Your task to perform on an android device: Show the shopping cart on newegg.com. Search for asus zenbook on newegg.com, select the first entry, add it to the cart, then select checkout. Image 0: 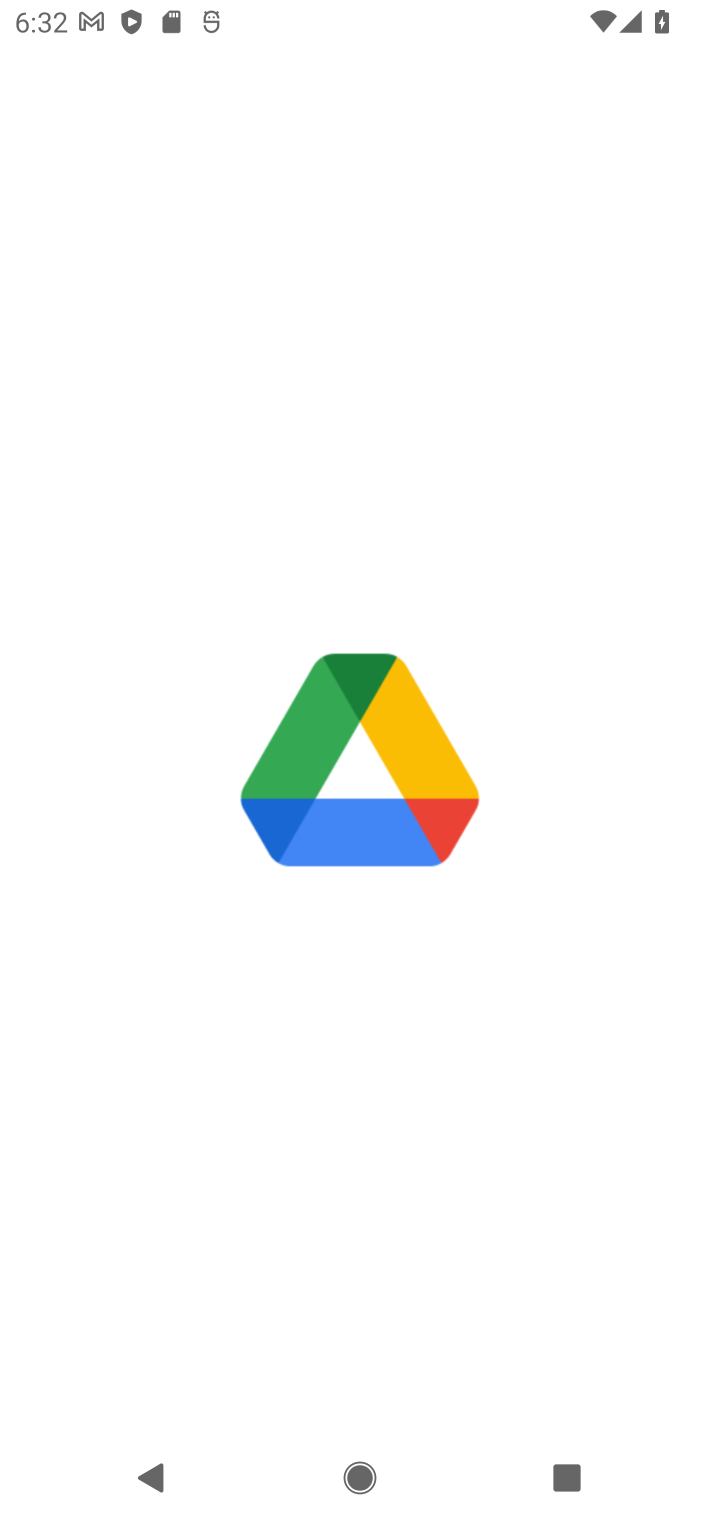
Step 0: press home button
Your task to perform on an android device: Show the shopping cart on newegg.com. Search for asus zenbook on newegg.com, select the first entry, add it to the cart, then select checkout. Image 1: 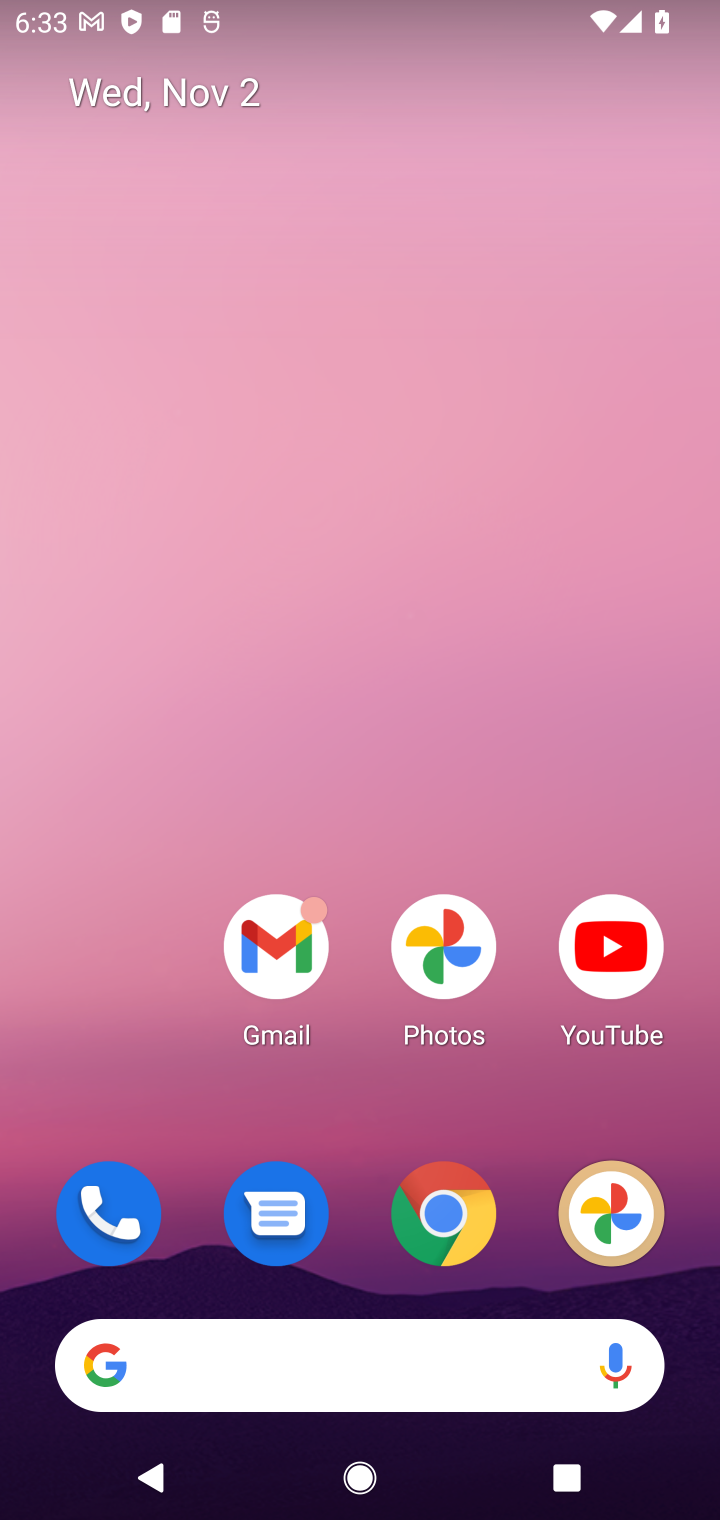
Step 1: click (446, 1208)
Your task to perform on an android device: Show the shopping cart on newegg.com. Search for asus zenbook on newegg.com, select the first entry, add it to the cart, then select checkout. Image 2: 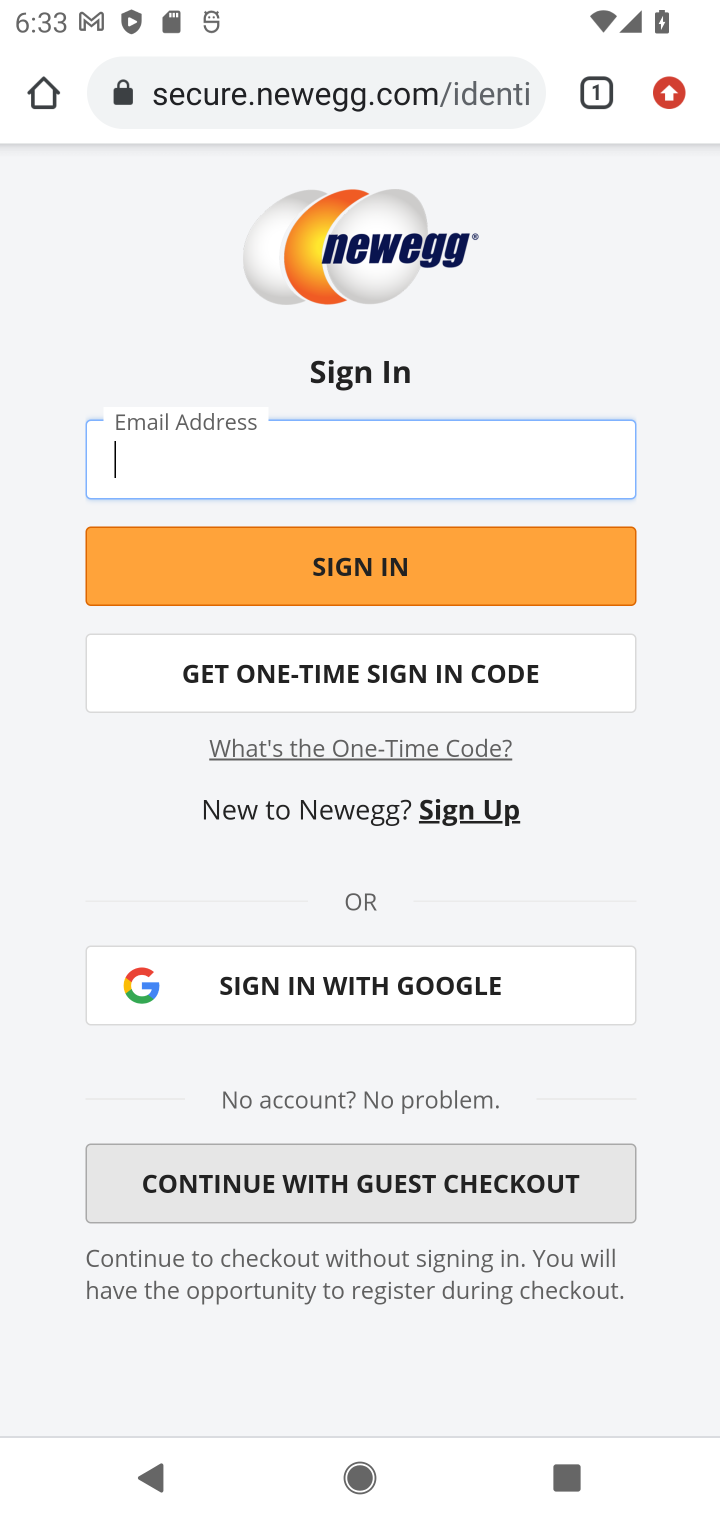
Step 2: click (410, 56)
Your task to perform on an android device: Show the shopping cart on newegg.com. Search for asus zenbook on newegg.com, select the first entry, add it to the cart, then select checkout. Image 3: 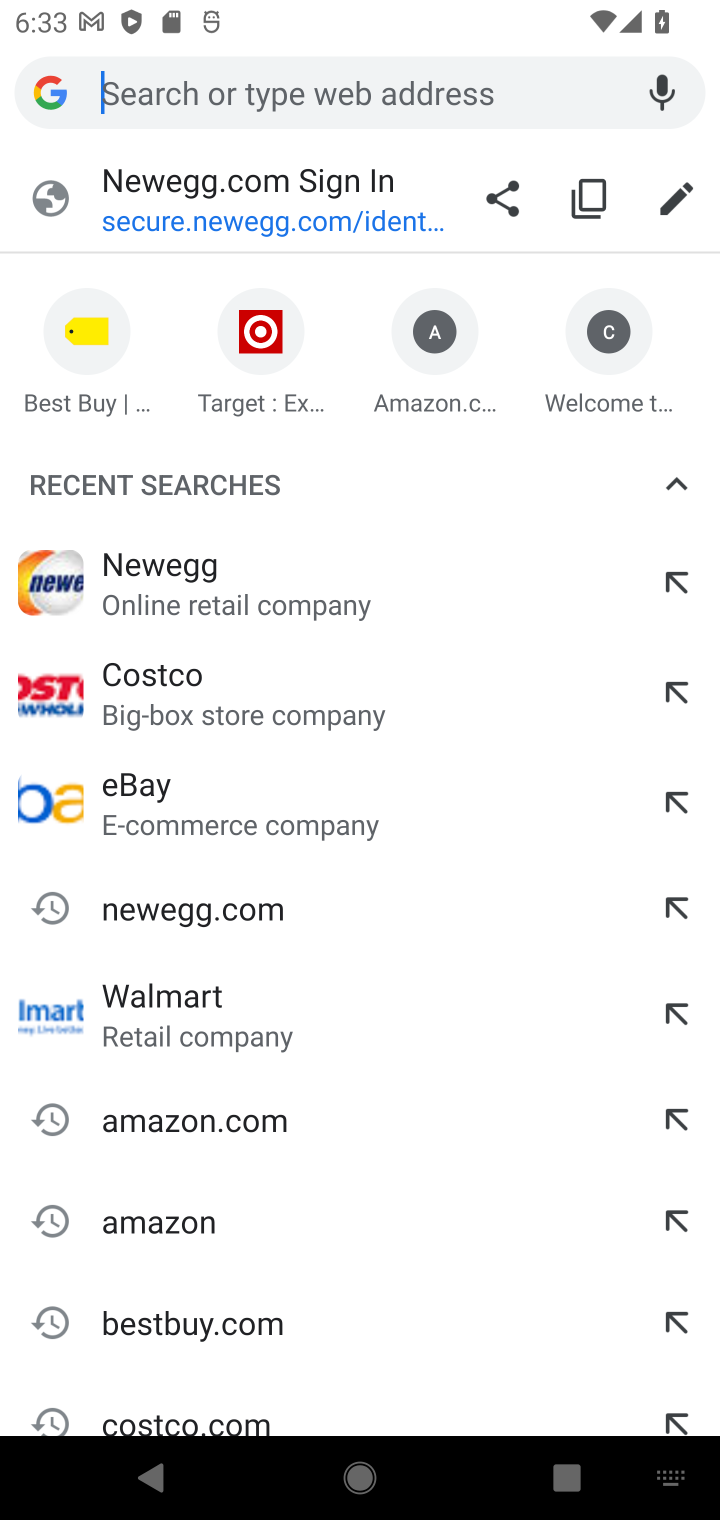
Step 3: click (176, 571)
Your task to perform on an android device: Show the shopping cart on newegg.com. Search for asus zenbook on newegg.com, select the first entry, add it to the cart, then select checkout. Image 4: 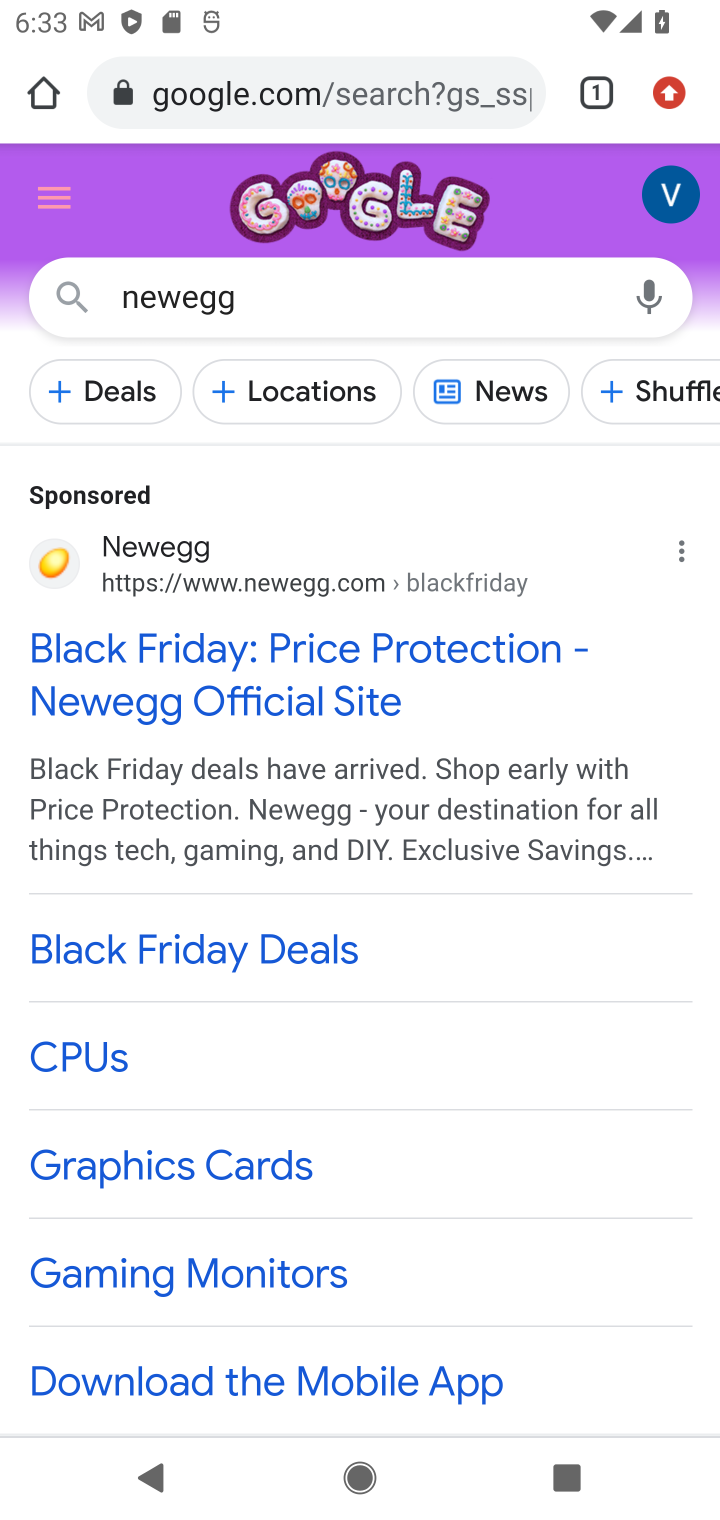
Step 4: click (150, 655)
Your task to perform on an android device: Show the shopping cart on newegg.com. Search for asus zenbook on newegg.com, select the first entry, add it to the cart, then select checkout. Image 5: 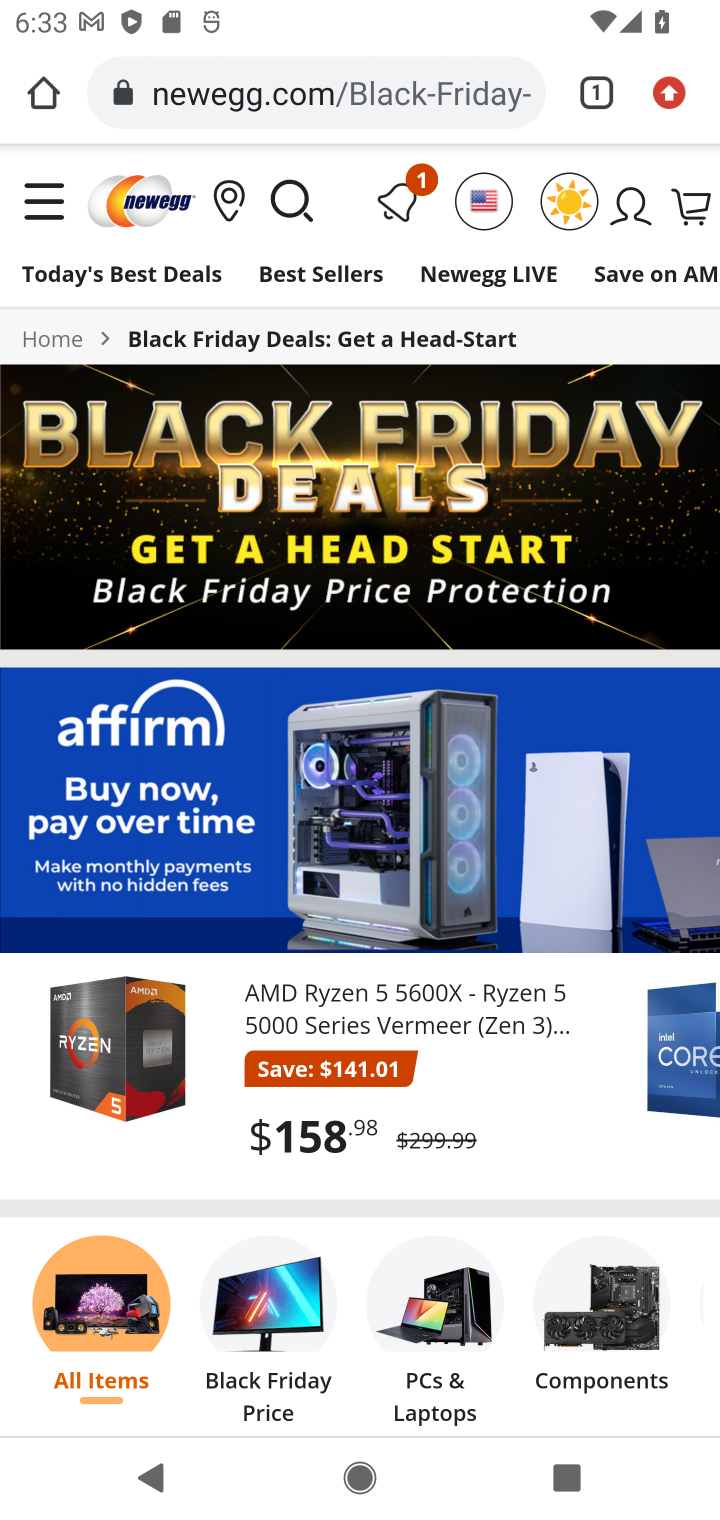
Step 5: click (695, 205)
Your task to perform on an android device: Show the shopping cart on newegg.com. Search for asus zenbook on newegg.com, select the first entry, add it to the cart, then select checkout. Image 6: 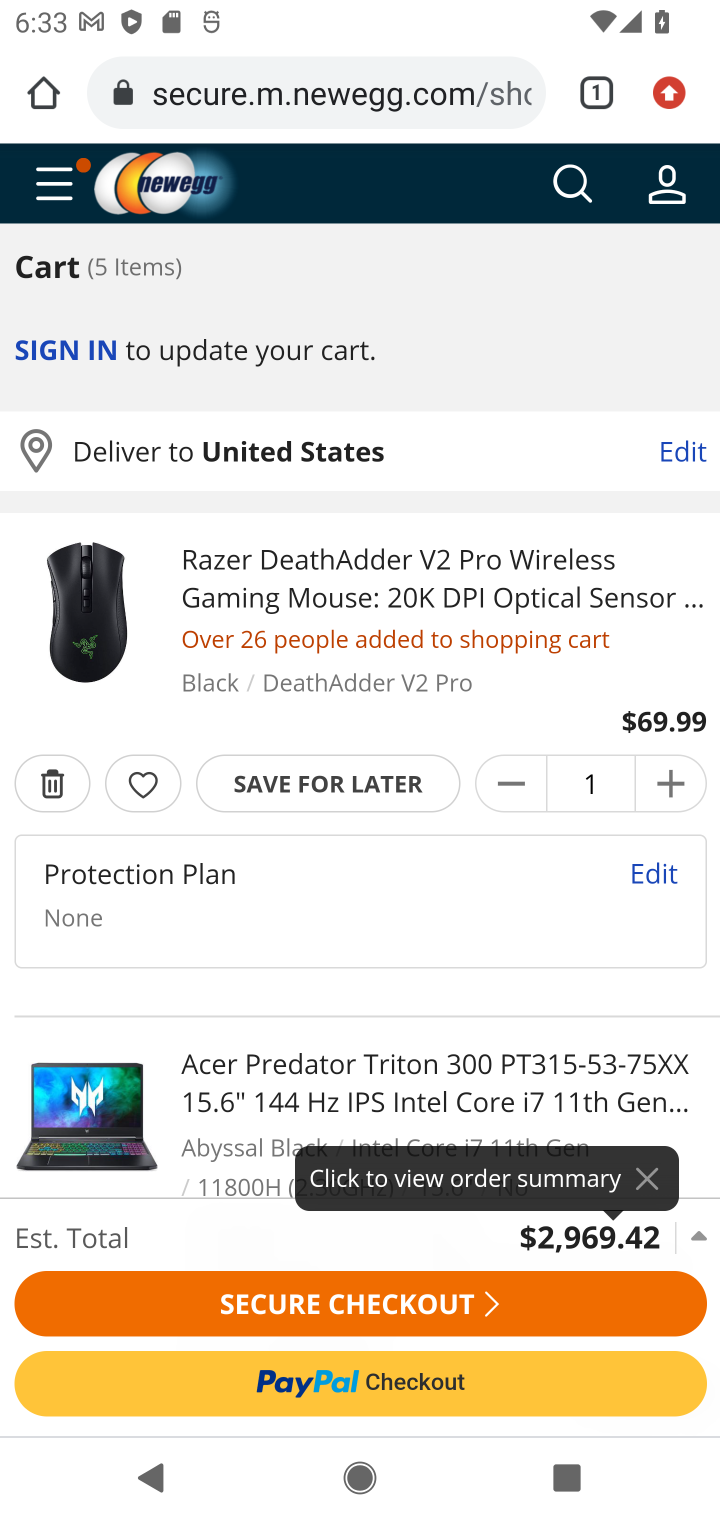
Step 6: click (580, 193)
Your task to perform on an android device: Show the shopping cart on newegg.com. Search for asus zenbook on newegg.com, select the first entry, add it to the cart, then select checkout. Image 7: 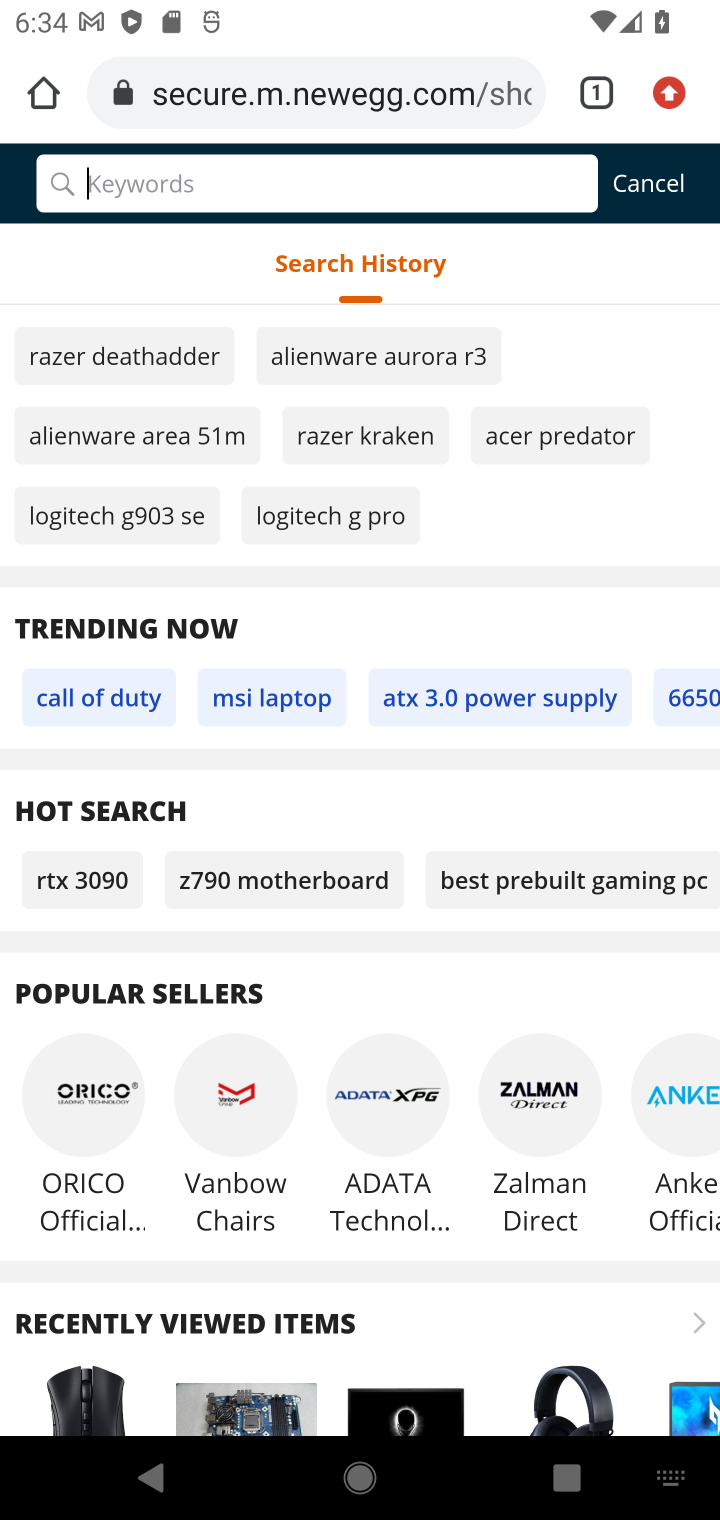
Step 7: type "asus zenbook"
Your task to perform on an android device: Show the shopping cart on newegg.com. Search for asus zenbook on newegg.com, select the first entry, add it to the cart, then select checkout. Image 8: 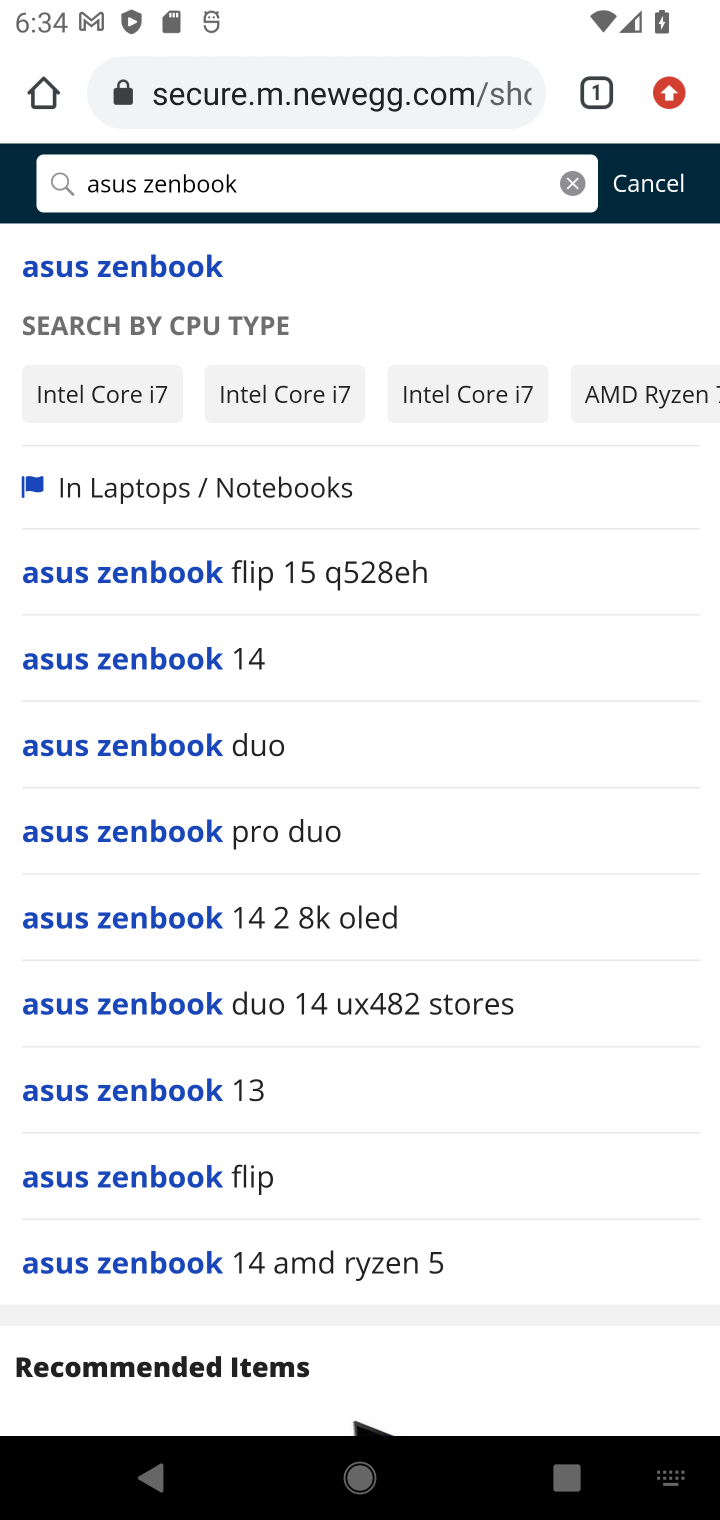
Step 8: click (60, 268)
Your task to perform on an android device: Show the shopping cart on newegg.com. Search for asus zenbook on newegg.com, select the first entry, add it to the cart, then select checkout. Image 9: 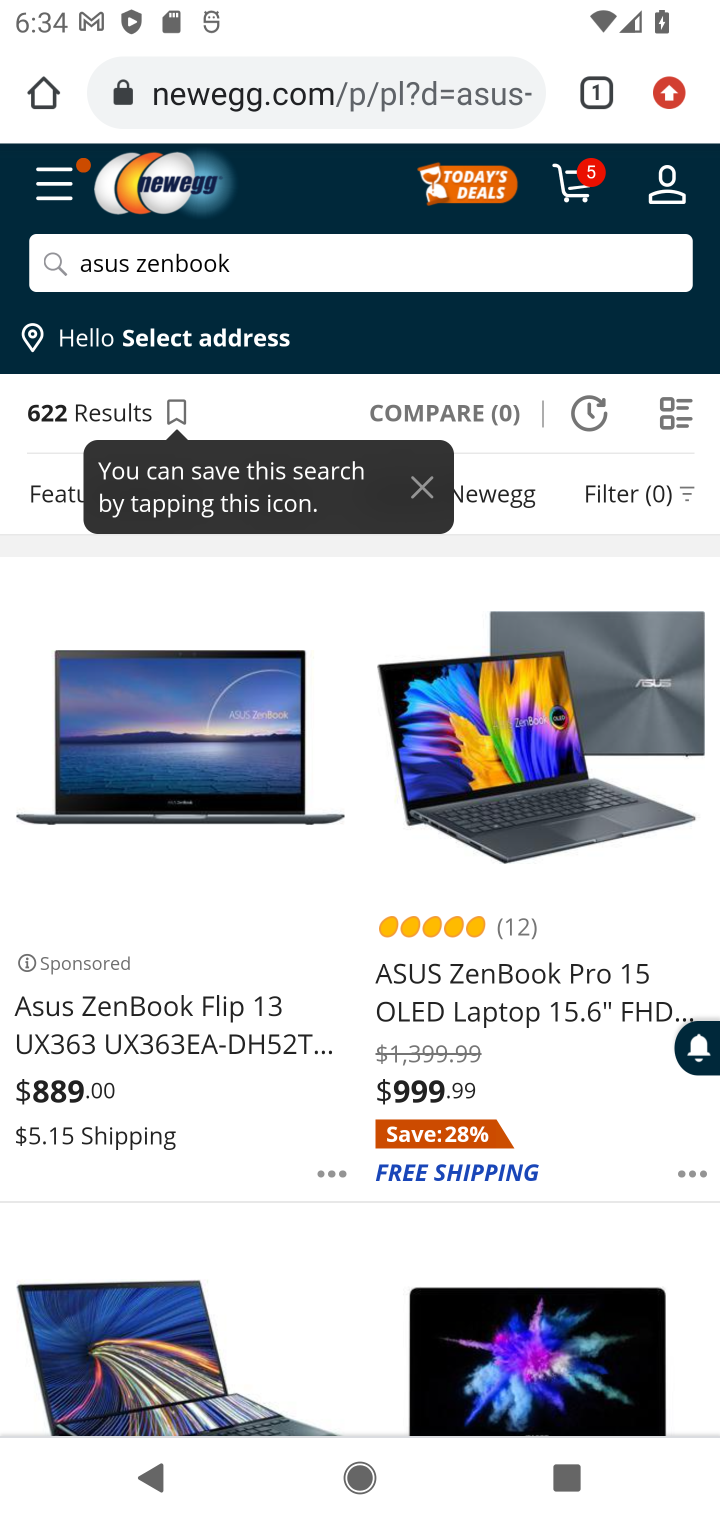
Step 9: click (137, 1030)
Your task to perform on an android device: Show the shopping cart on newegg.com. Search for asus zenbook on newegg.com, select the first entry, add it to the cart, then select checkout. Image 10: 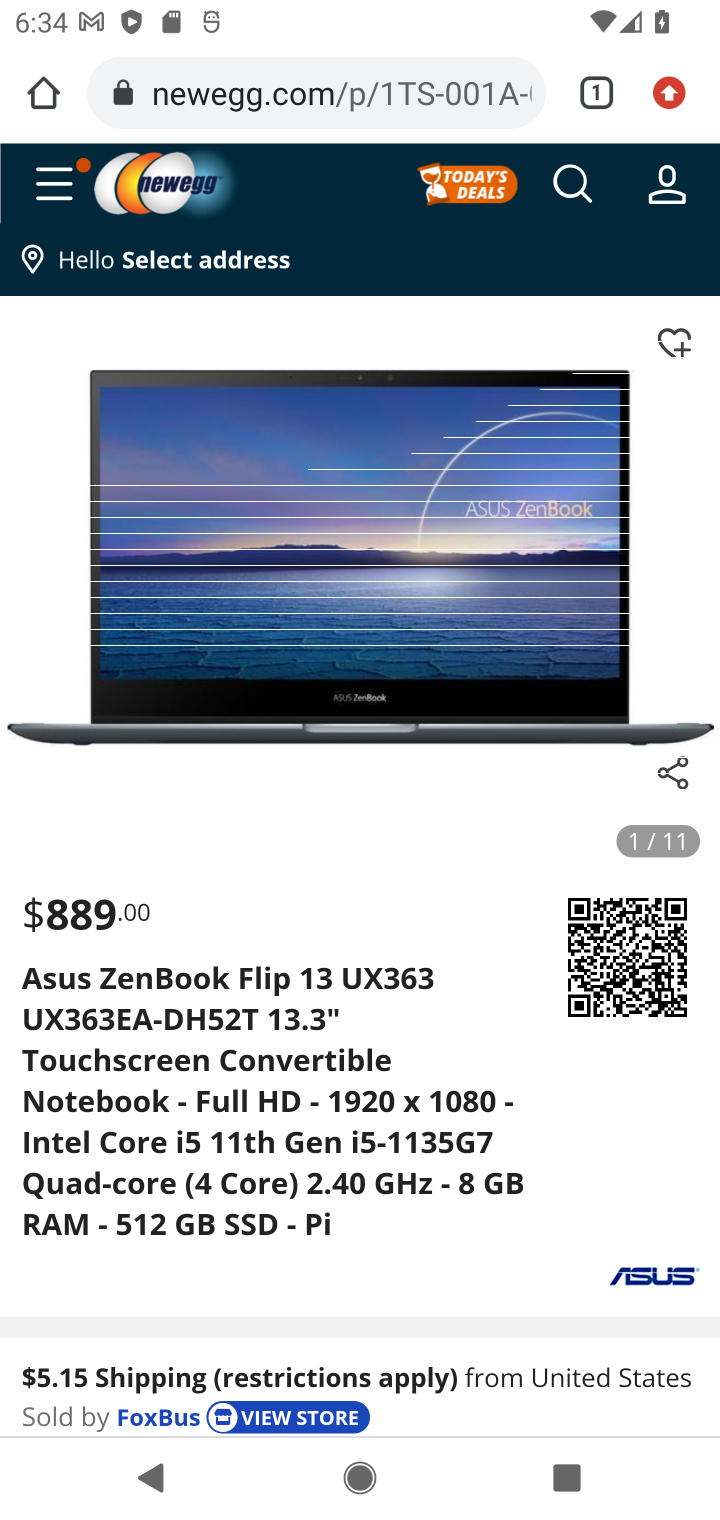
Step 10: click (359, 1389)
Your task to perform on an android device: Show the shopping cart on newegg.com. Search for asus zenbook on newegg.com, select the first entry, add it to the cart, then select checkout. Image 11: 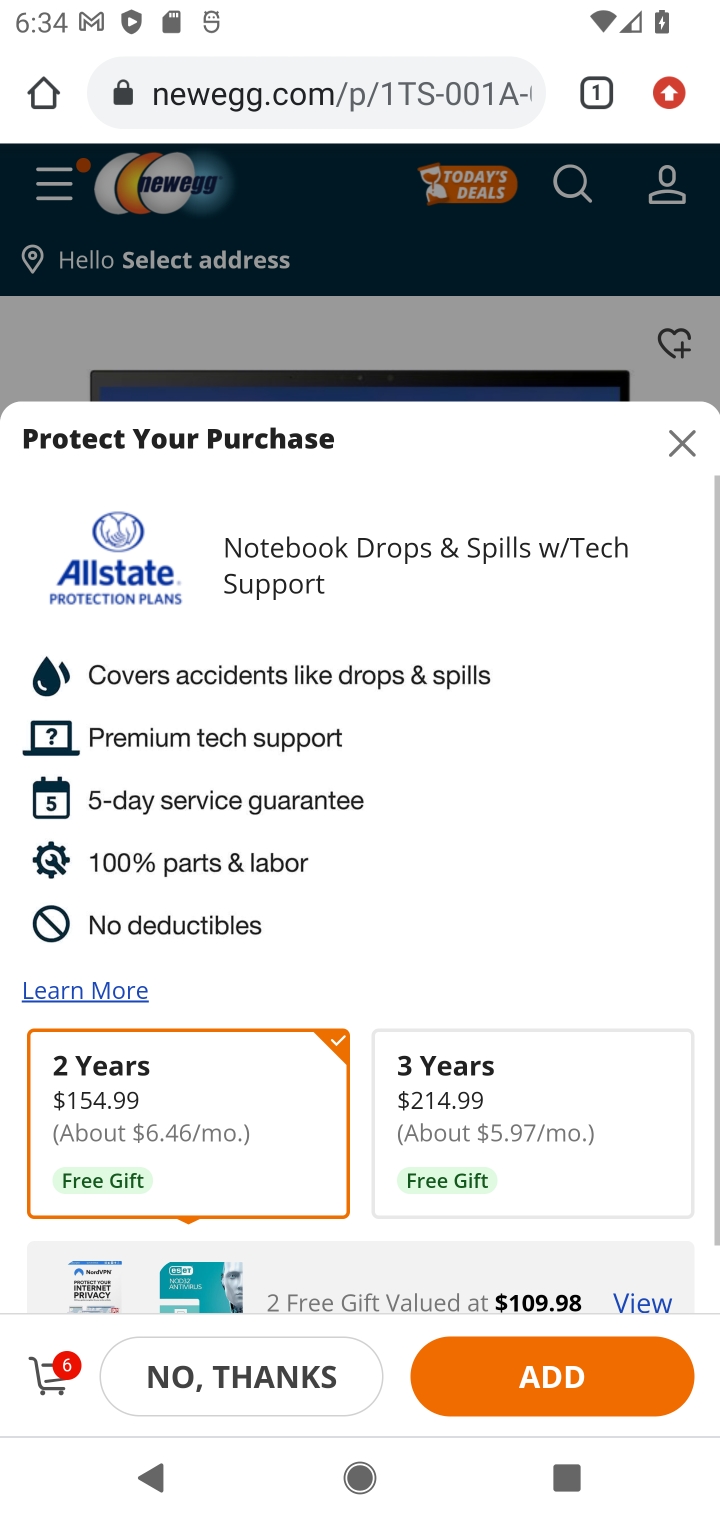
Step 11: click (206, 1374)
Your task to perform on an android device: Show the shopping cart on newegg.com. Search for asus zenbook on newegg.com, select the first entry, add it to the cart, then select checkout. Image 12: 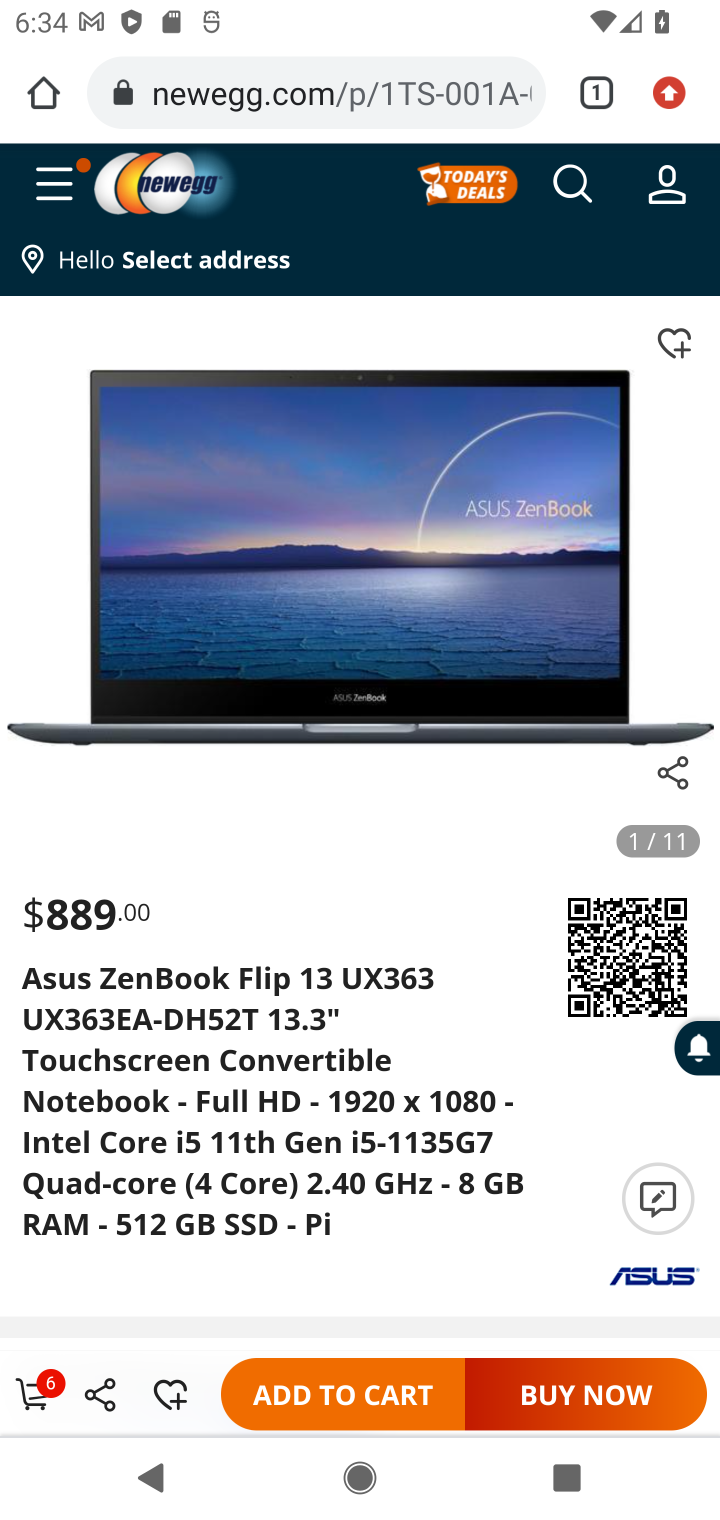
Step 12: click (33, 1382)
Your task to perform on an android device: Show the shopping cart on newegg.com. Search for asus zenbook on newegg.com, select the first entry, add it to the cart, then select checkout. Image 13: 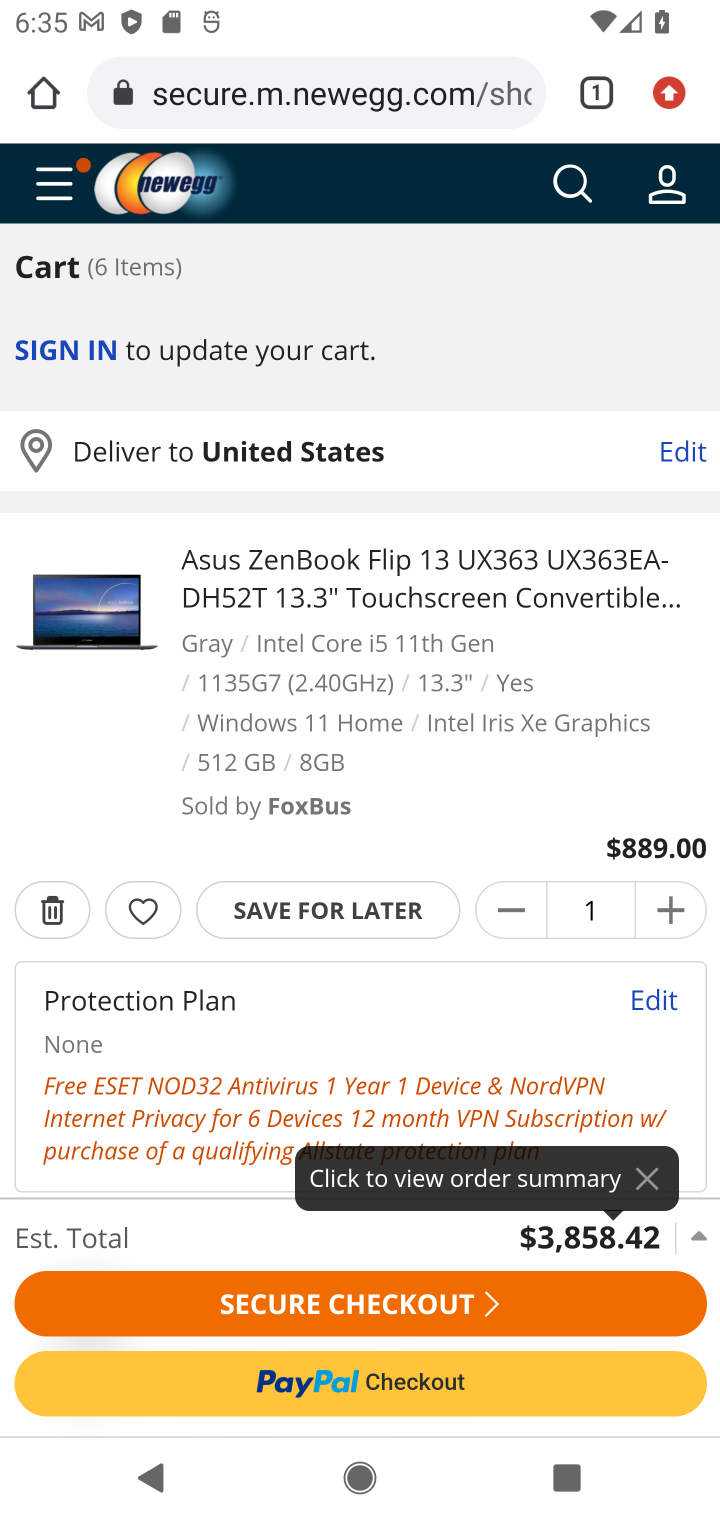
Step 13: click (364, 1295)
Your task to perform on an android device: Show the shopping cart on newegg.com. Search for asus zenbook on newegg.com, select the first entry, add it to the cart, then select checkout. Image 14: 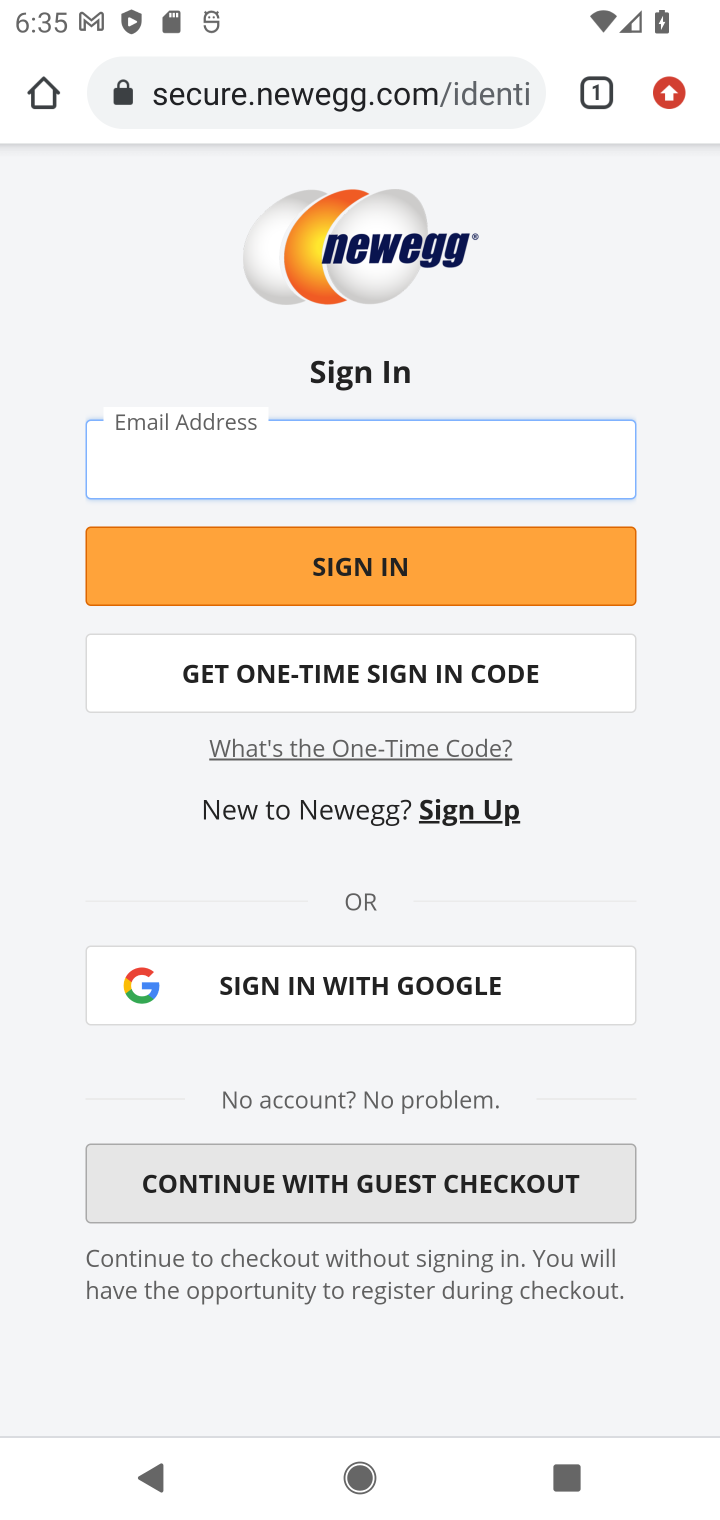
Step 14: task complete